Your task to perform on an android device: clear all cookies in the chrome app Image 0: 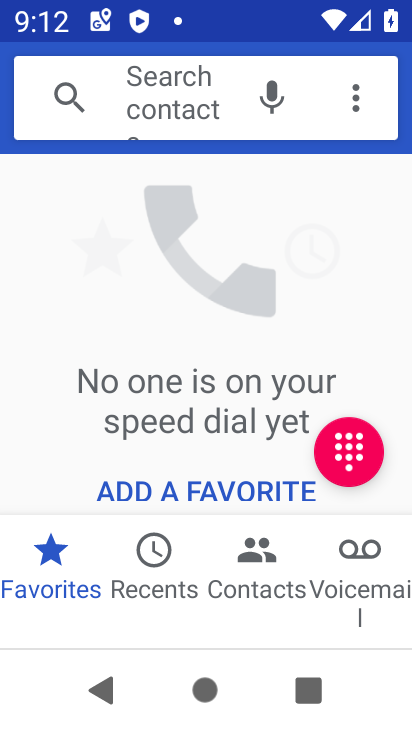
Step 0: press home button
Your task to perform on an android device: clear all cookies in the chrome app Image 1: 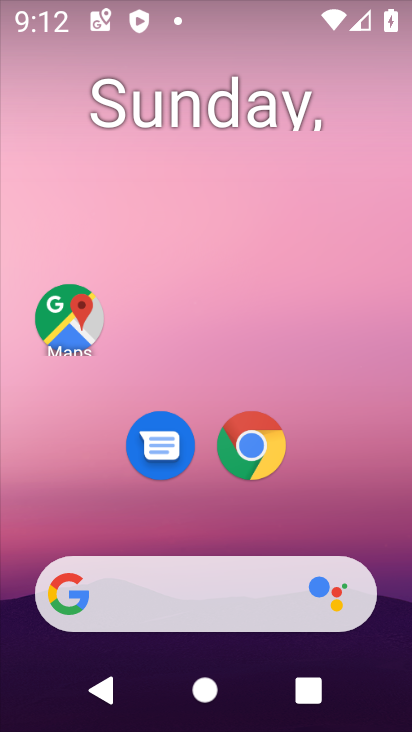
Step 1: click (253, 443)
Your task to perform on an android device: clear all cookies in the chrome app Image 2: 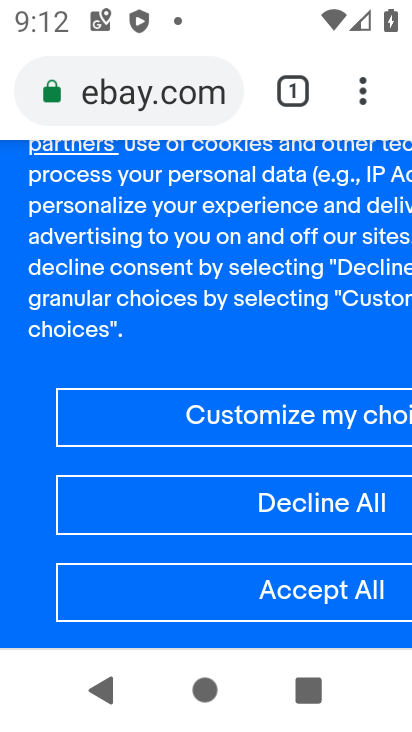
Step 2: click (362, 96)
Your task to perform on an android device: clear all cookies in the chrome app Image 3: 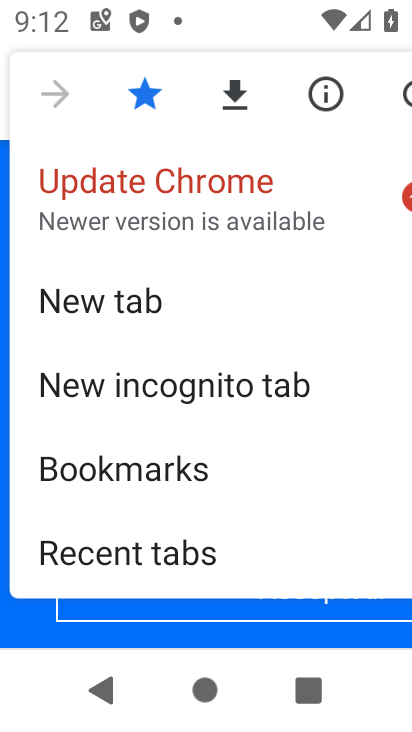
Step 3: drag from (270, 505) to (321, 231)
Your task to perform on an android device: clear all cookies in the chrome app Image 4: 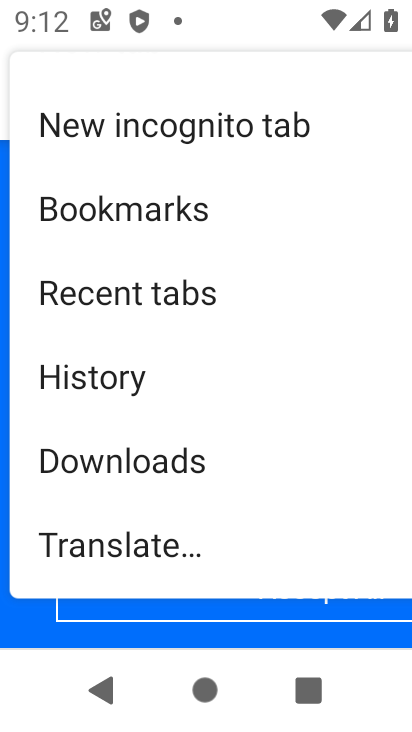
Step 4: click (78, 371)
Your task to perform on an android device: clear all cookies in the chrome app Image 5: 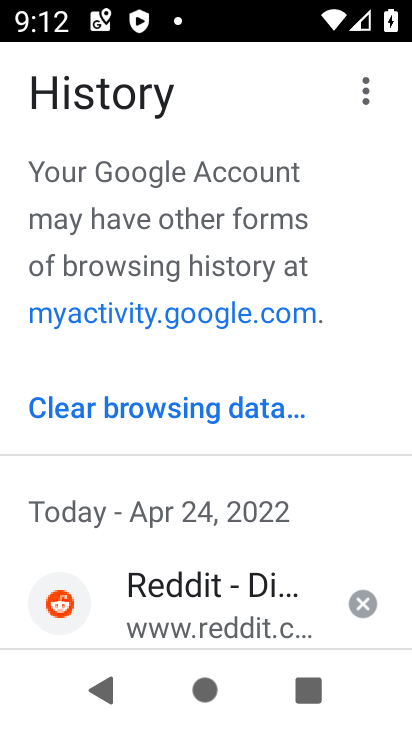
Step 5: click (107, 410)
Your task to perform on an android device: clear all cookies in the chrome app Image 6: 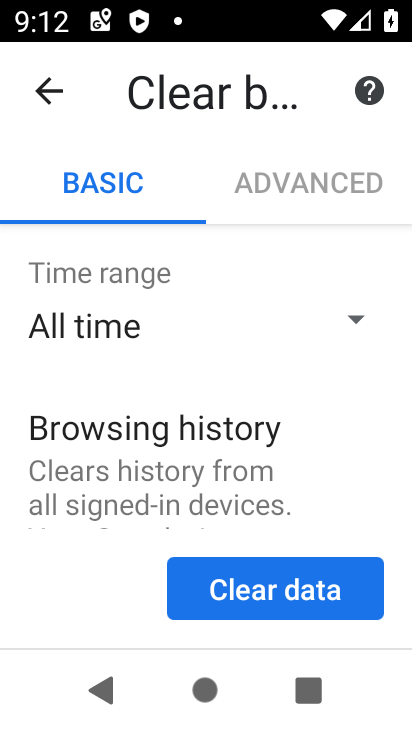
Step 6: drag from (205, 481) to (205, 243)
Your task to perform on an android device: clear all cookies in the chrome app Image 7: 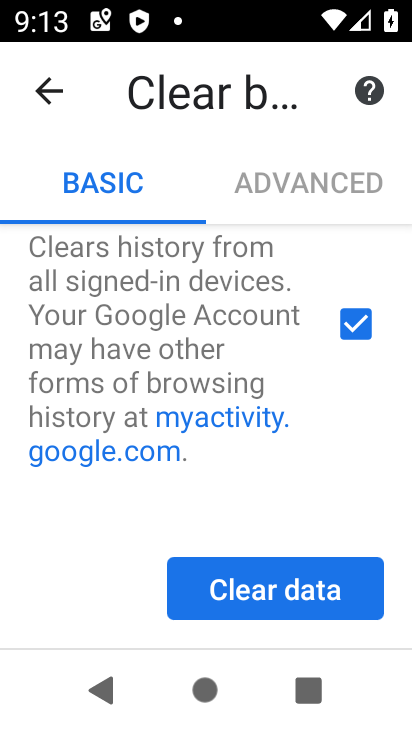
Step 7: click (360, 328)
Your task to perform on an android device: clear all cookies in the chrome app Image 8: 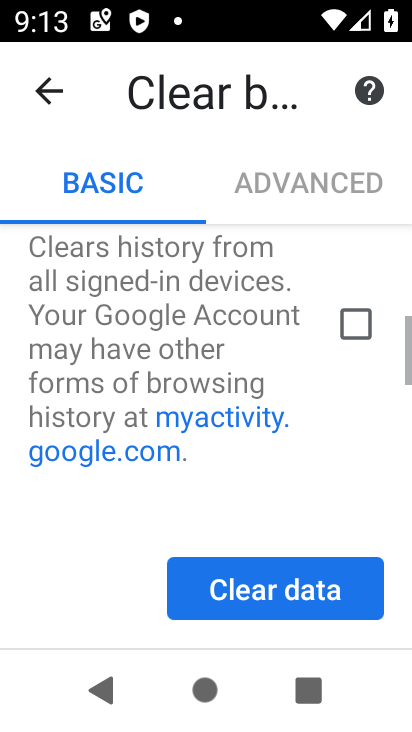
Step 8: drag from (305, 469) to (289, 133)
Your task to perform on an android device: clear all cookies in the chrome app Image 9: 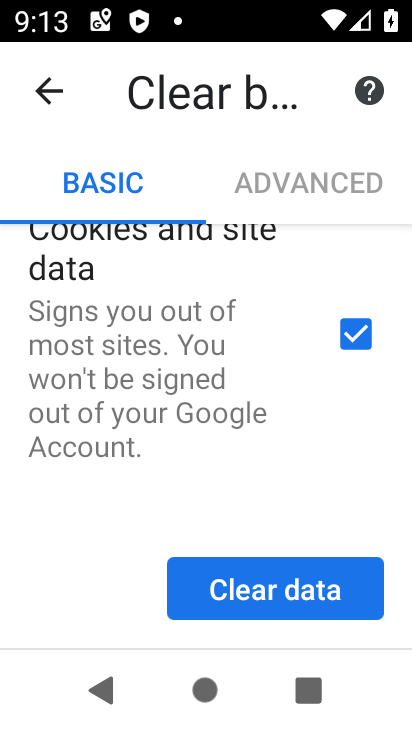
Step 9: drag from (256, 454) to (240, 78)
Your task to perform on an android device: clear all cookies in the chrome app Image 10: 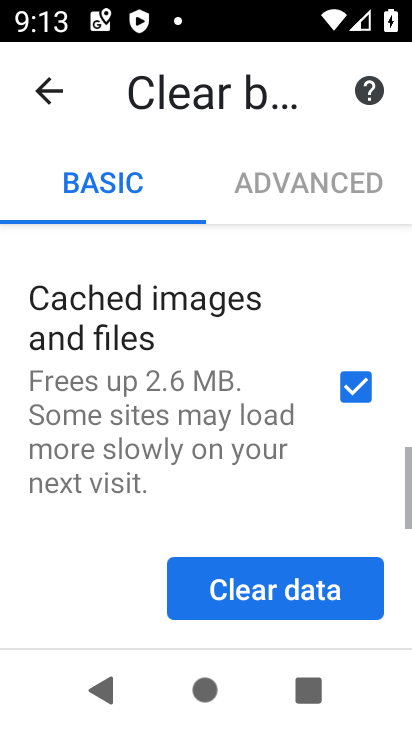
Step 10: click (352, 394)
Your task to perform on an android device: clear all cookies in the chrome app Image 11: 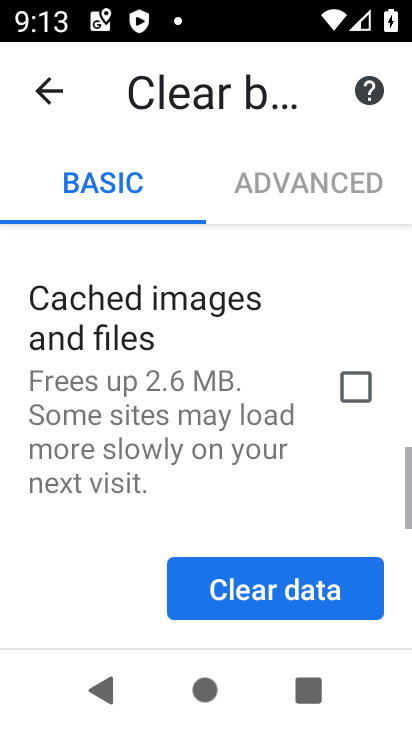
Step 11: drag from (227, 445) to (196, 112)
Your task to perform on an android device: clear all cookies in the chrome app Image 12: 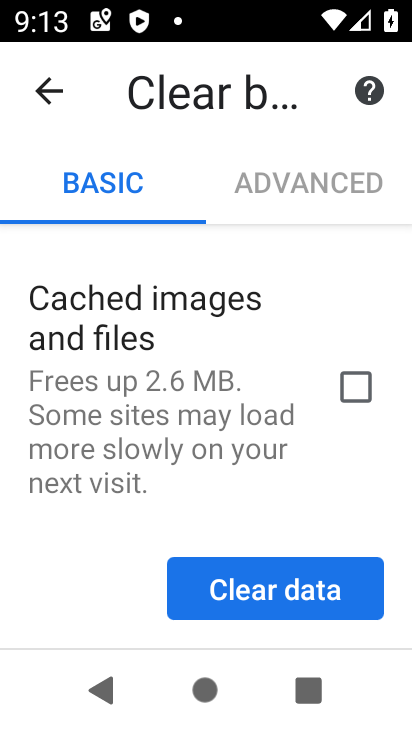
Step 12: click (278, 588)
Your task to perform on an android device: clear all cookies in the chrome app Image 13: 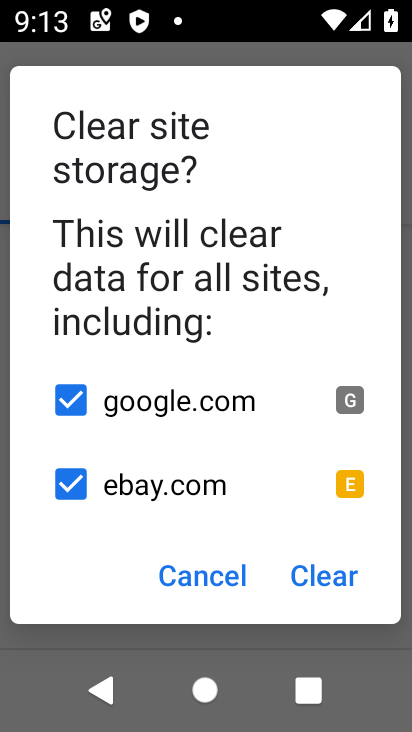
Step 13: click (316, 567)
Your task to perform on an android device: clear all cookies in the chrome app Image 14: 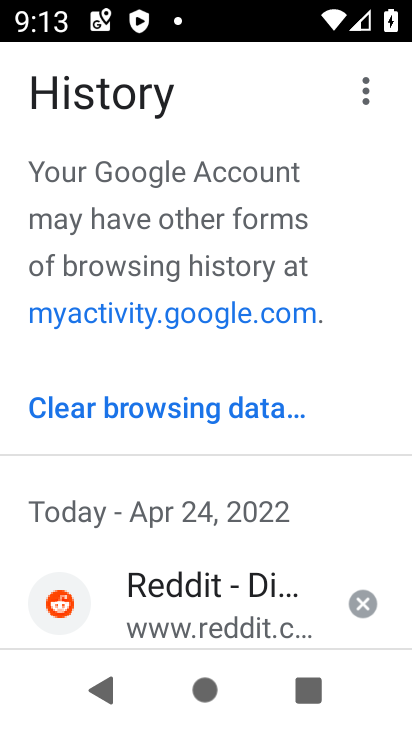
Step 14: task complete